Your task to perform on an android device: add a label to a message in the gmail app Image 0: 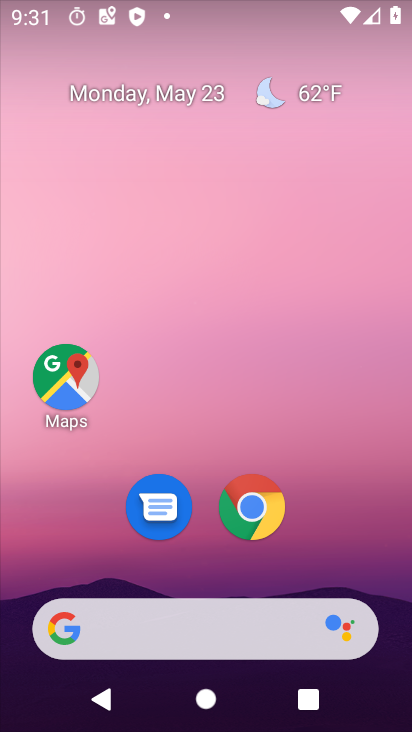
Step 0: drag from (325, 529) to (209, 157)
Your task to perform on an android device: add a label to a message in the gmail app Image 1: 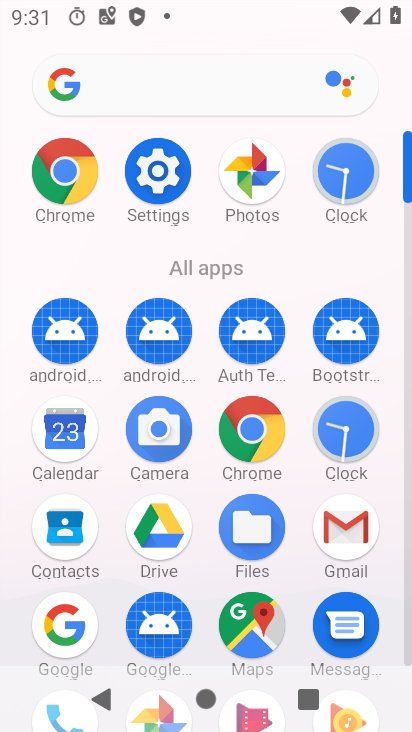
Step 1: click (346, 526)
Your task to perform on an android device: add a label to a message in the gmail app Image 2: 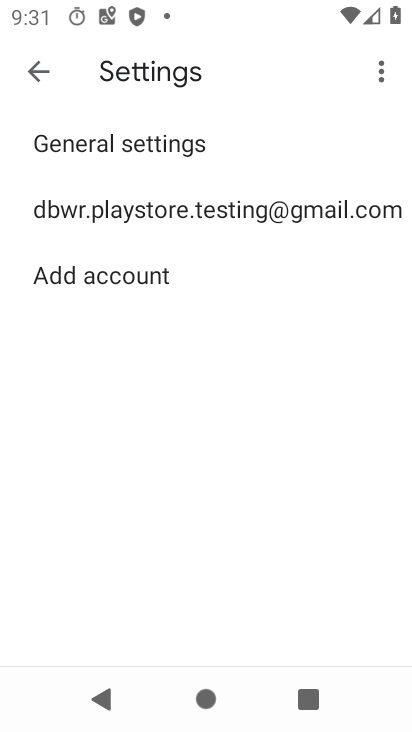
Step 2: click (270, 208)
Your task to perform on an android device: add a label to a message in the gmail app Image 3: 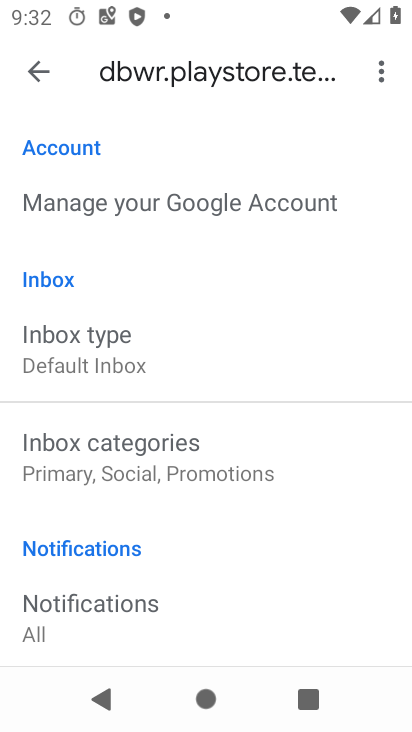
Step 3: click (41, 73)
Your task to perform on an android device: add a label to a message in the gmail app Image 4: 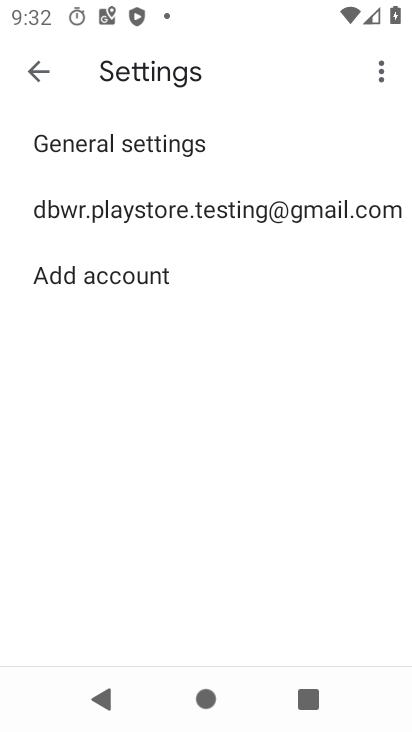
Step 4: click (41, 73)
Your task to perform on an android device: add a label to a message in the gmail app Image 5: 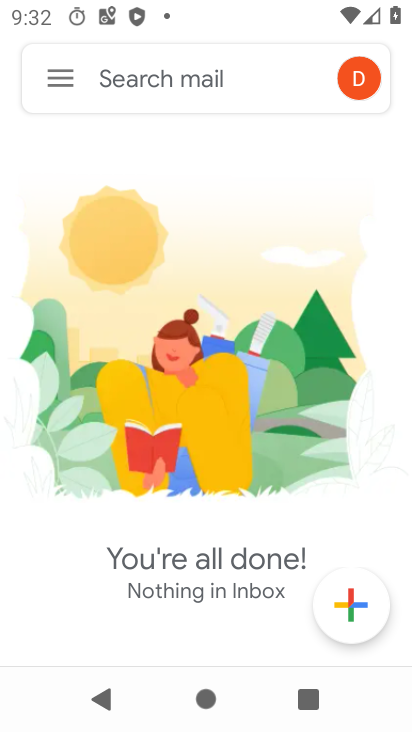
Step 5: click (60, 76)
Your task to perform on an android device: add a label to a message in the gmail app Image 6: 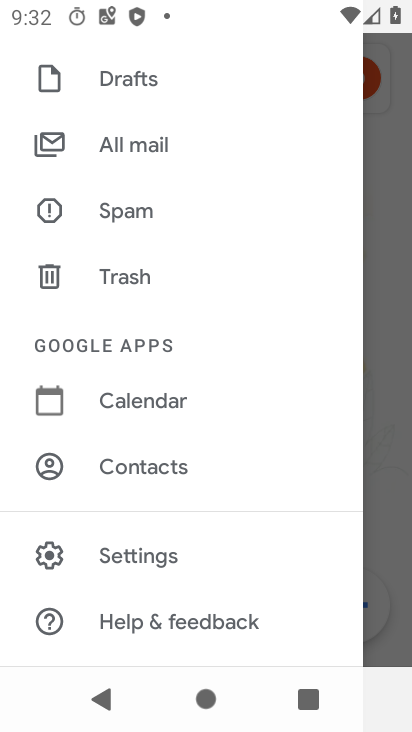
Step 6: click (134, 138)
Your task to perform on an android device: add a label to a message in the gmail app Image 7: 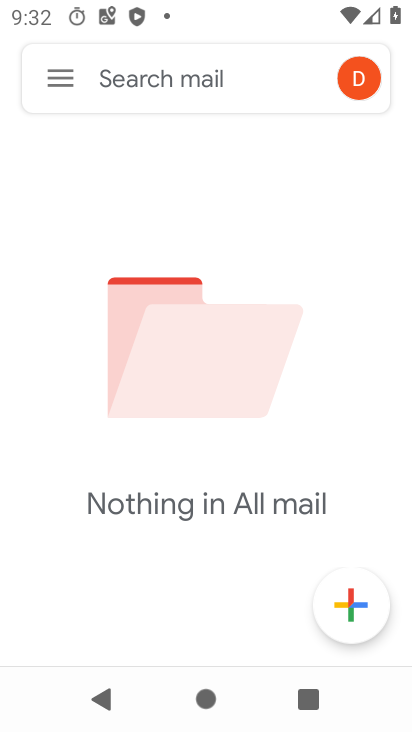
Step 7: click (55, 84)
Your task to perform on an android device: add a label to a message in the gmail app Image 8: 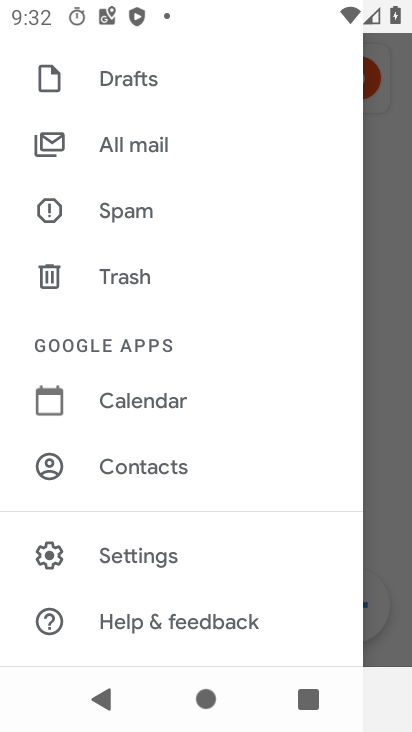
Step 8: task complete